Your task to perform on an android device: Search for the best selling book on Amazon. Image 0: 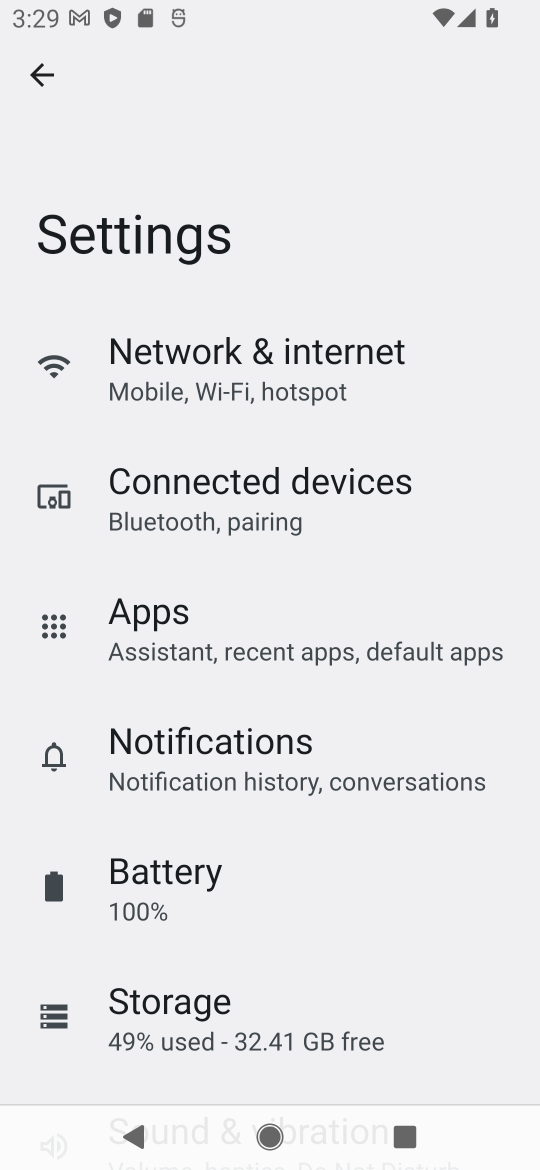
Step 0: press home button
Your task to perform on an android device: Search for the best selling book on Amazon. Image 1: 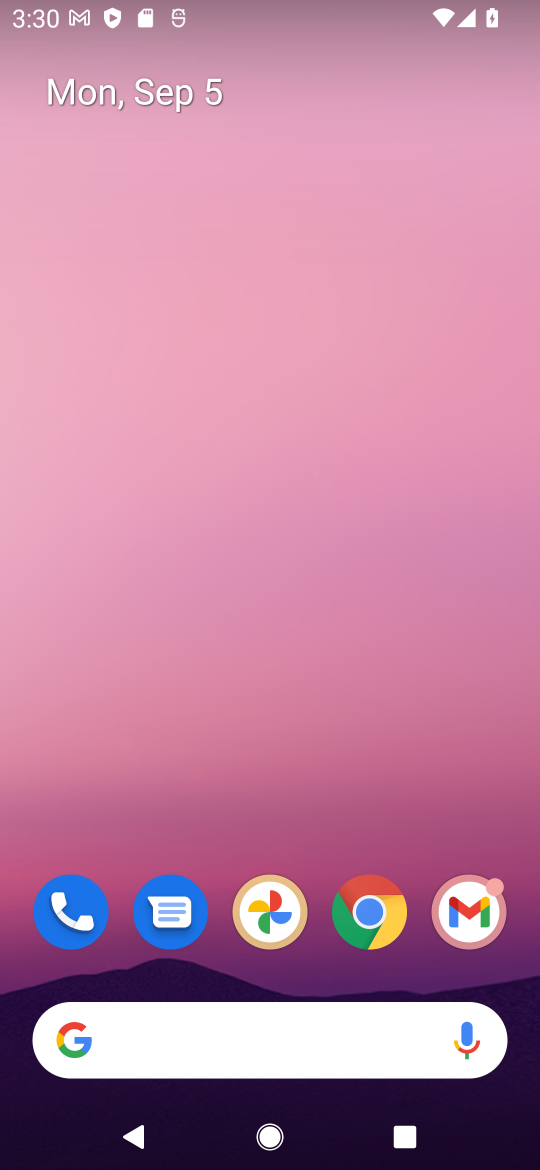
Step 1: click (356, 930)
Your task to perform on an android device: Search for the best selling book on Amazon. Image 2: 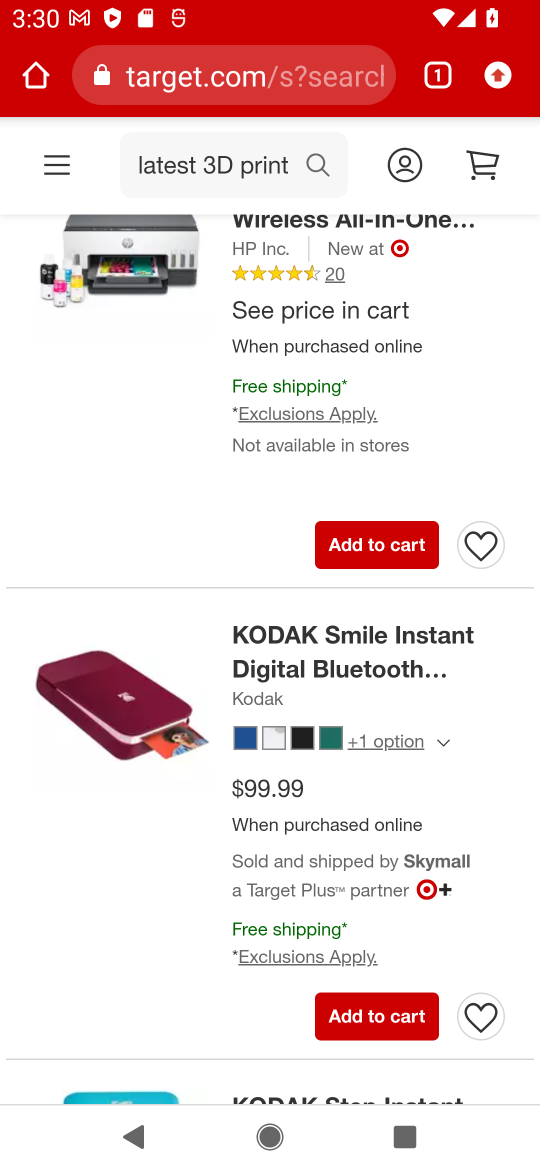
Step 2: click (268, 83)
Your task to perform on an android device: Search for the best selling book on Amazon. Image 3: 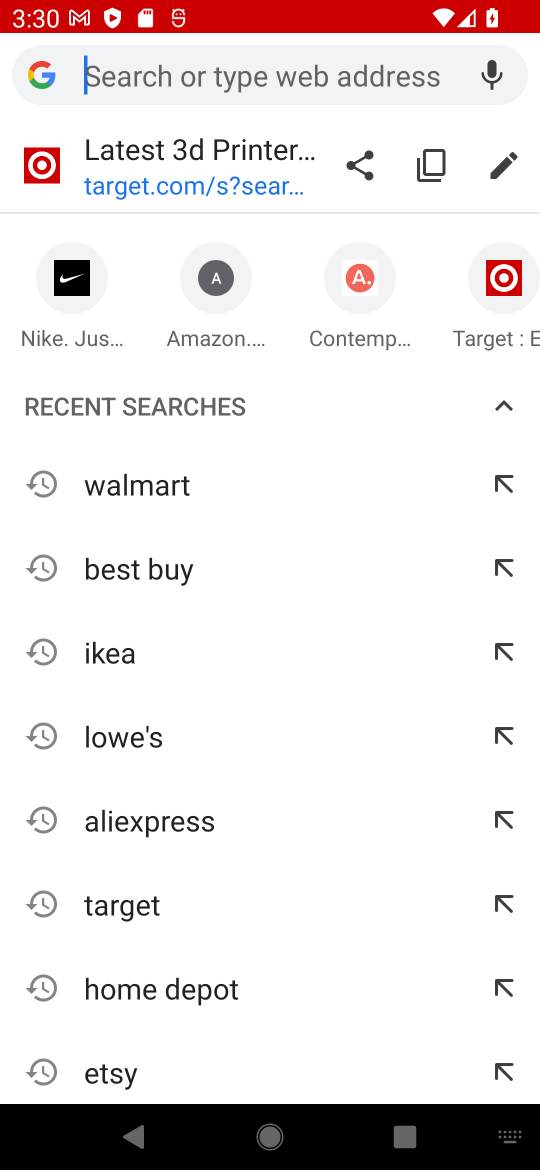
Step 3: type "amazon"
Your task to perform on an android device: Search for the best selling book on Amazon. Image 4: 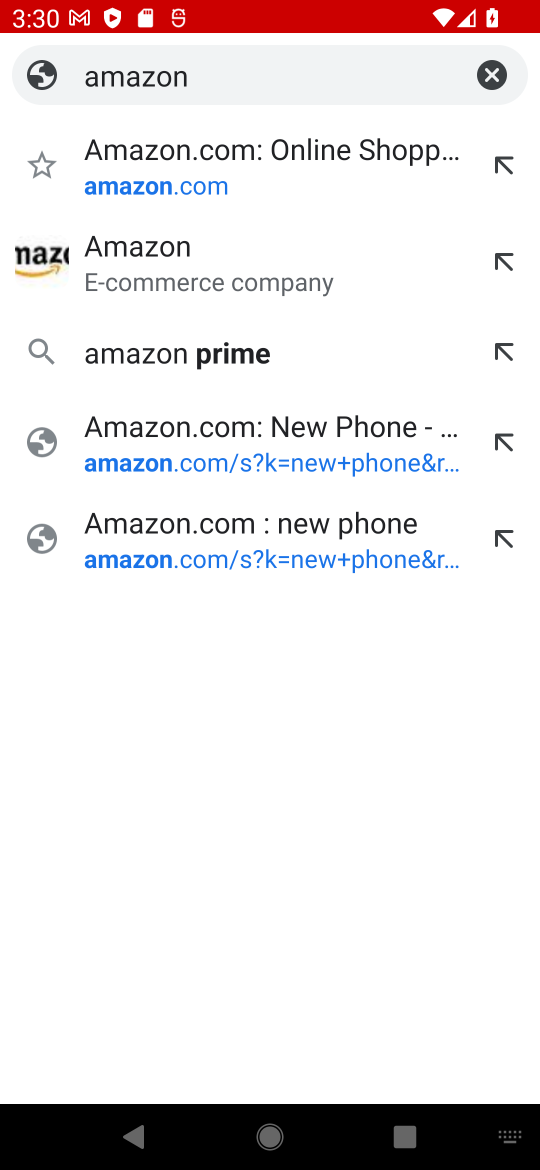
Step 4: press enter
Your task to perform on an android device: Search for the best selling book on Amazon. Image 5: 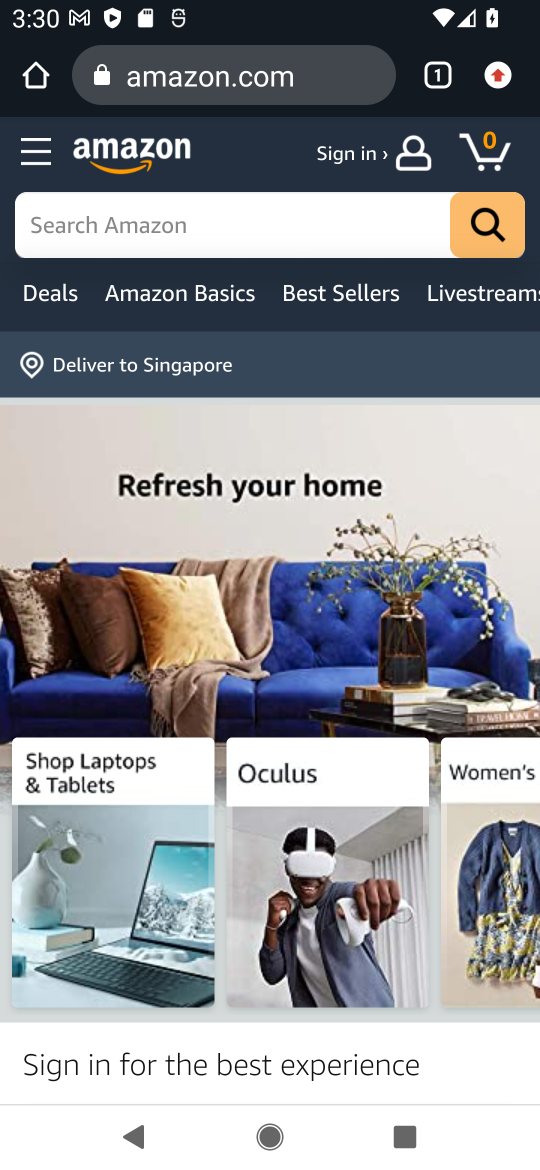
Step 5: click (254, 229)
Your task to perform on an android device: Search for the best selling book on Amazon. Image 6: 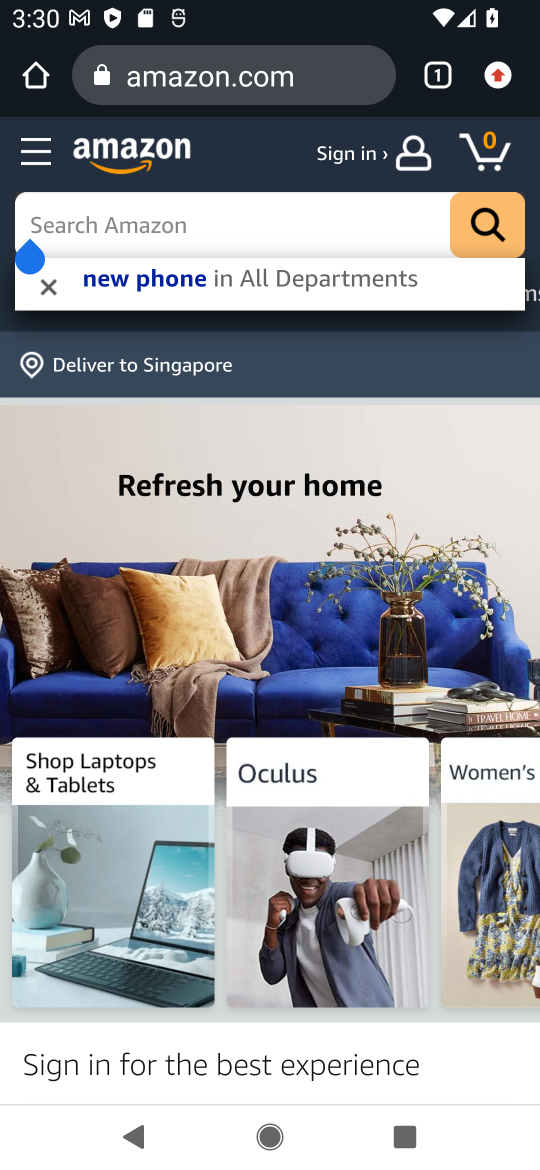
Step 6: type "best selling book"
Your task to perform on an android device: Search for the best selling book on Amazon. Image 7: 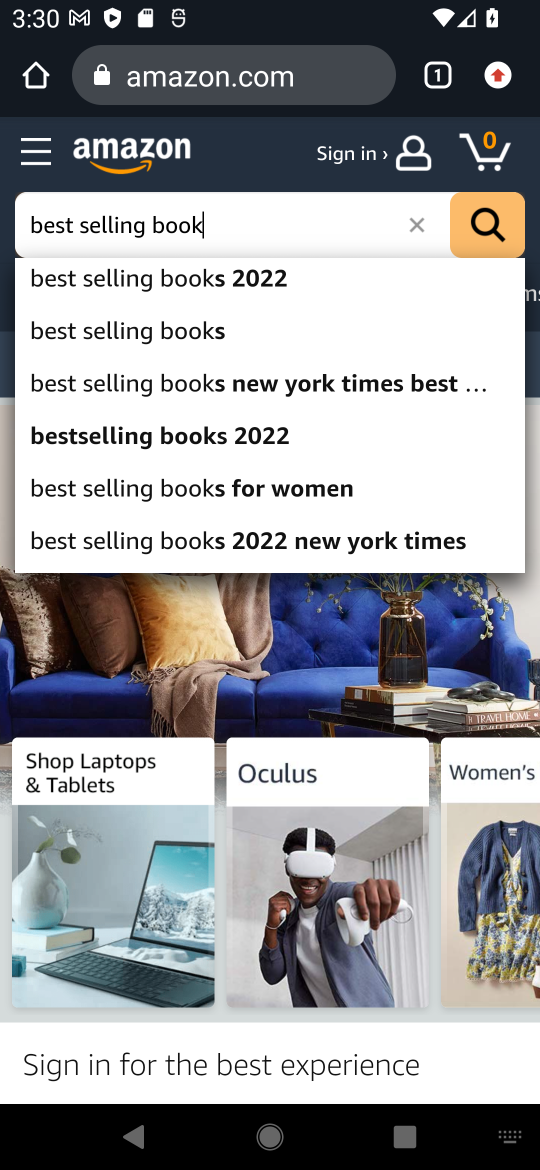
Step 7: press enter
Your task to perform on an android device: Search for the best selling book on Amazon. Image 8: 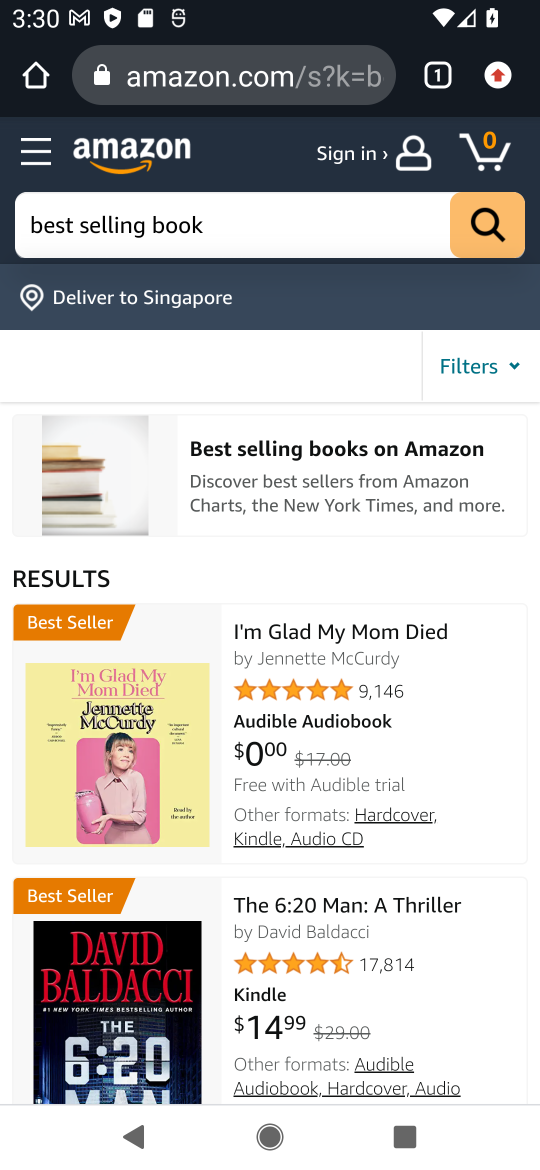
Step 8: drag from (419, 828) to (379, 305)
Your task to perform on an android device: Search for the best selling book on Amazon. Image 9: 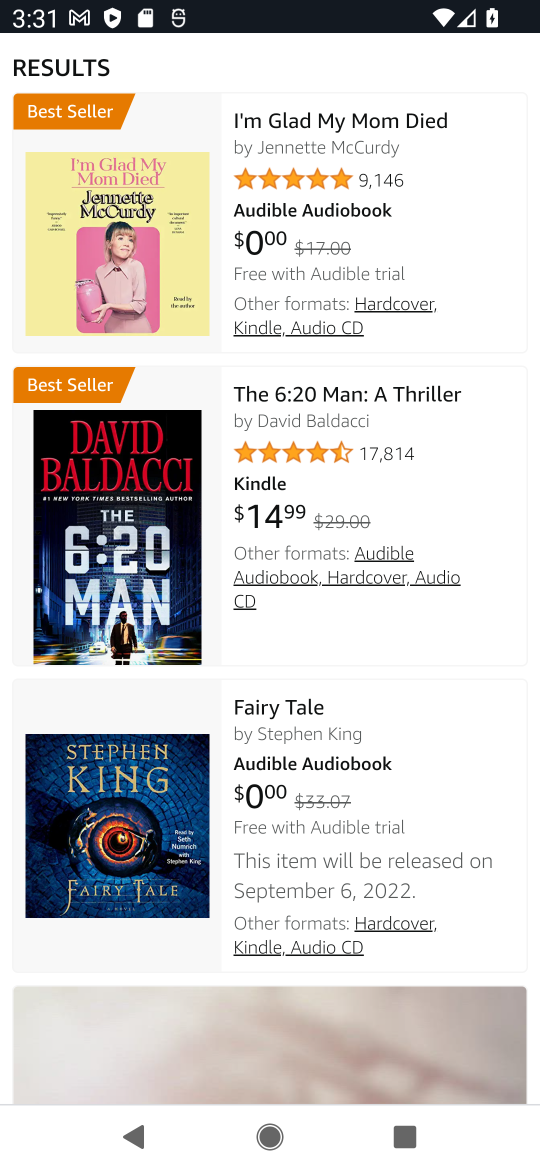
Step 9: drag from (325, 905) to (325, 496)
Your task to perform on an android device: Search for the best selling book on Amazon. Image 10: 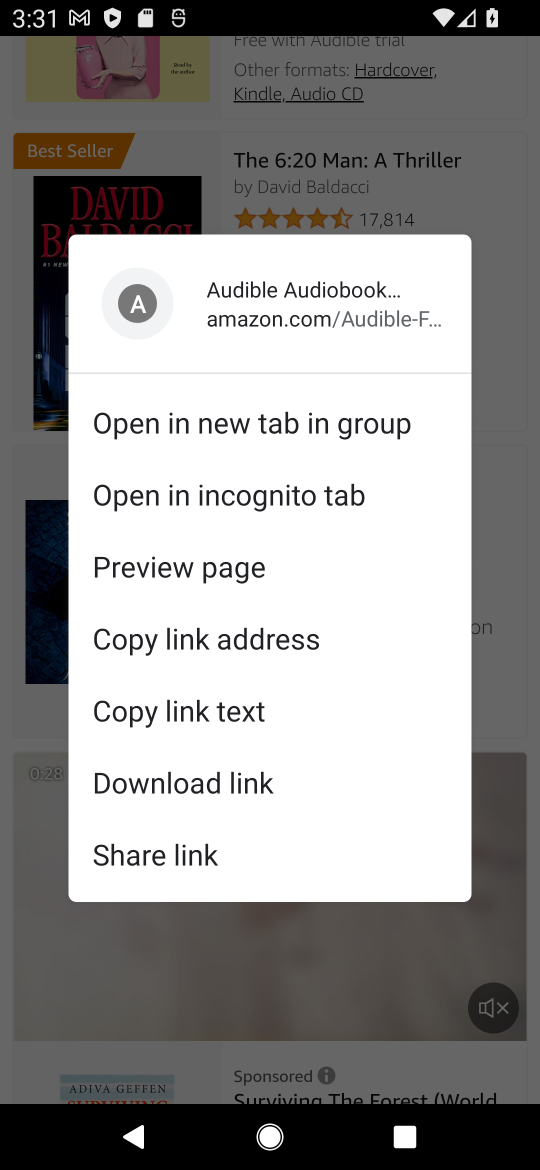
Step 10: click (526, 540)
Your task to perform on an android device: Search for the best selling book on Amazon. Image 11: 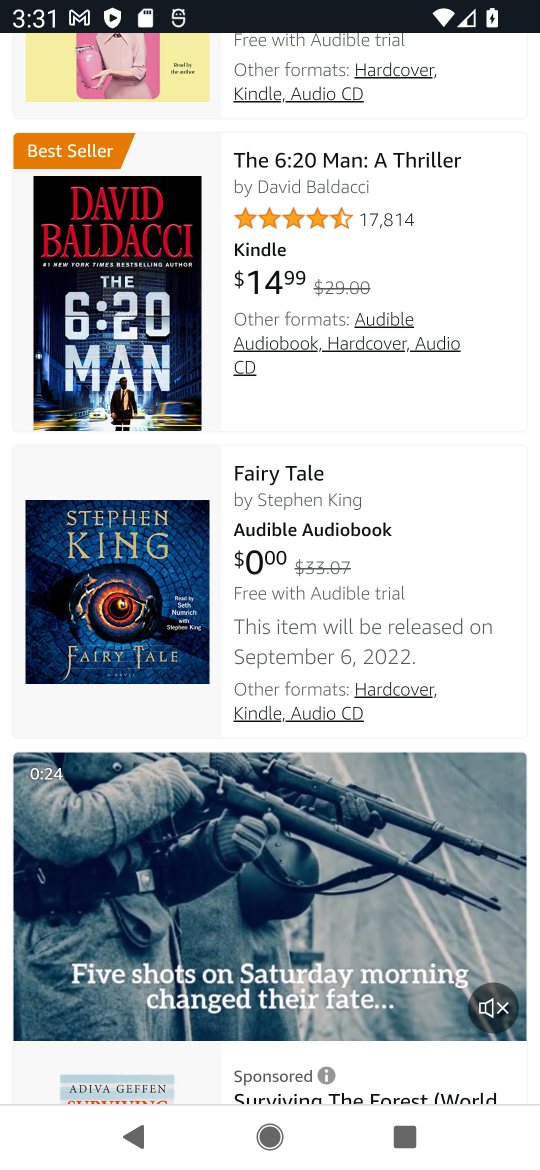
Step 11: task complete